Your task to perform on an android device: Open settings Image 0: 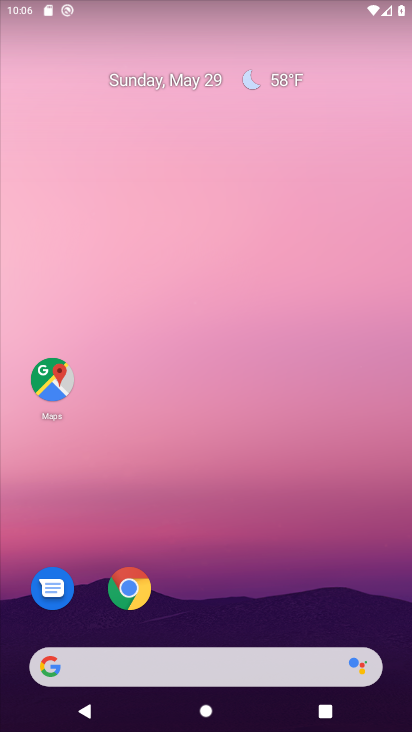
Step 0: drag from (218, 687) to (160, 114)
Your task to perform on an android device: Open settings Image 1: 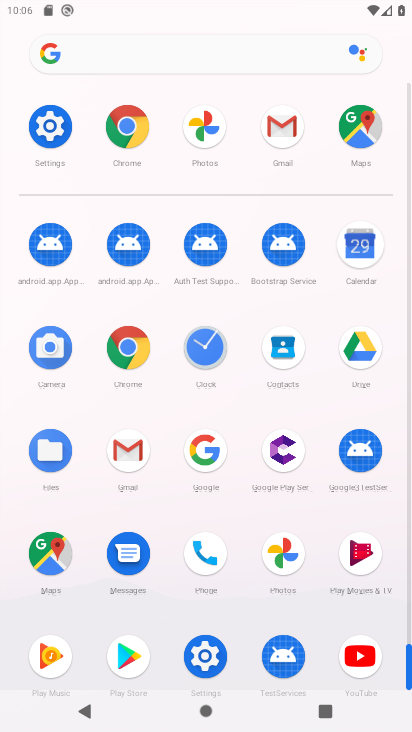
Step 1: click (209, 633)
Your task to perform on an android device: Open settings Image 2: 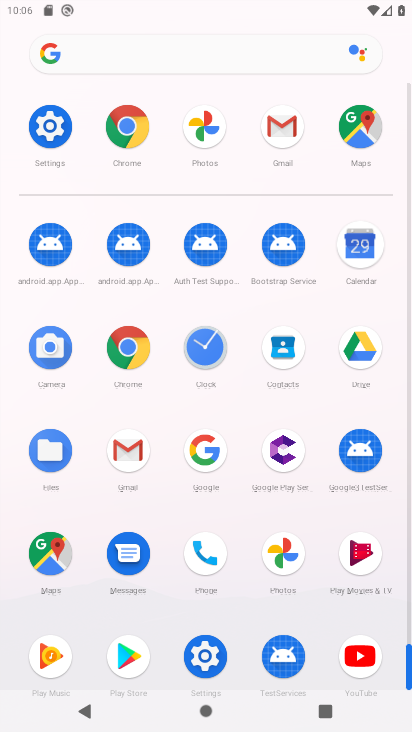
Step 2: click (209, 649)
Your task to perform on an android device: Open settings Image 3: 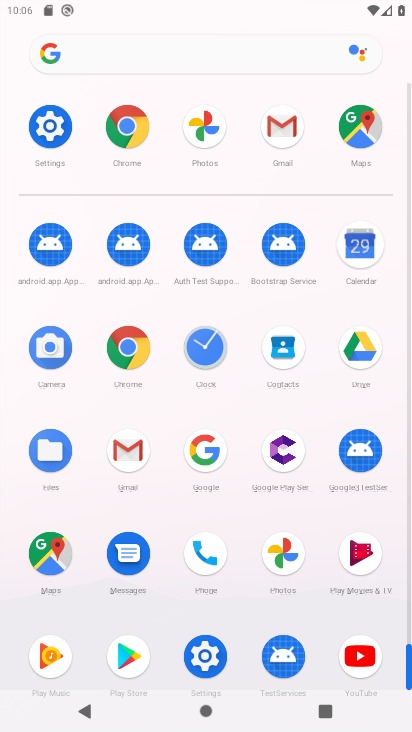
Step 3: click (210, 650)
Your task to perform on an android device: Open settings Image 4: 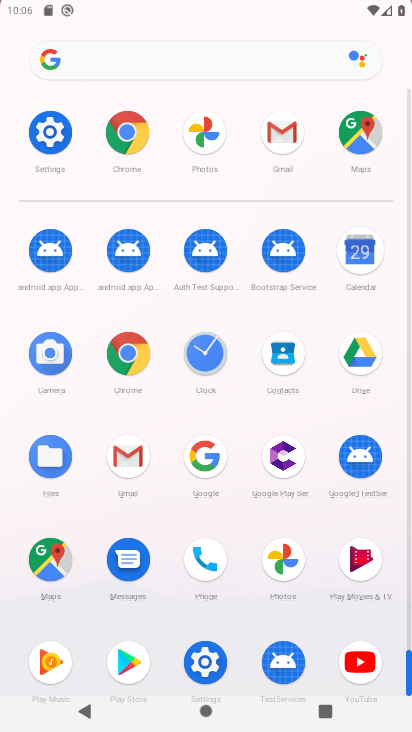
Step 4: click (211, 649)
Your task to perform on an android device: Open settings Image 5: 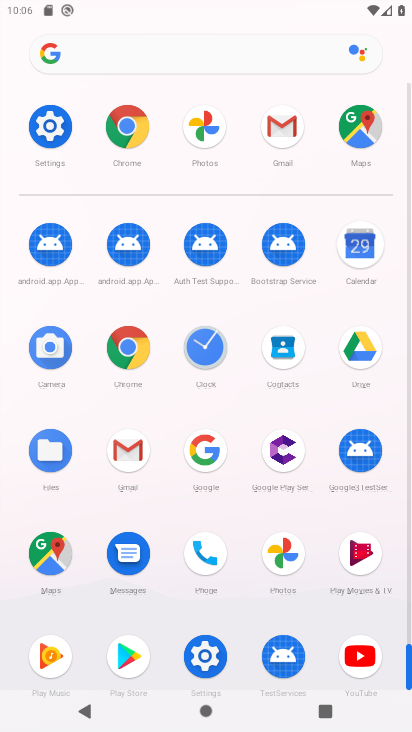
Step 5: click (211, 649)
Your task to perform on an android device: Open settings Image 6: 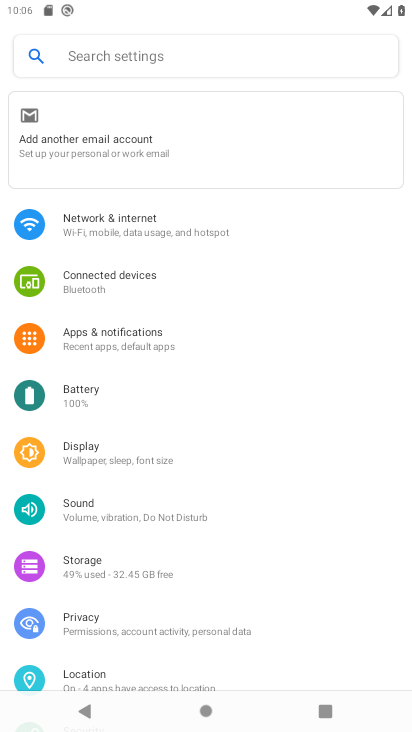
Step 6: task complete